Your task to perform on an android device: Is it going to rain tomorrow? Image 0: 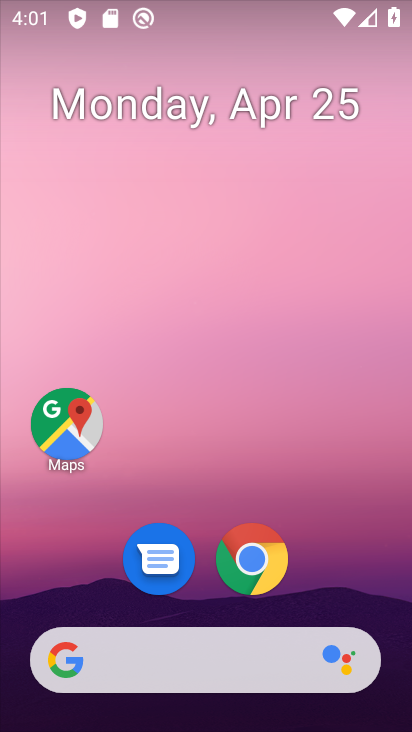
Step 0: drag from (262, 432) to (255, 22)
Your task to perform on an android device: Is it going to rain tomorrow? Image 1: 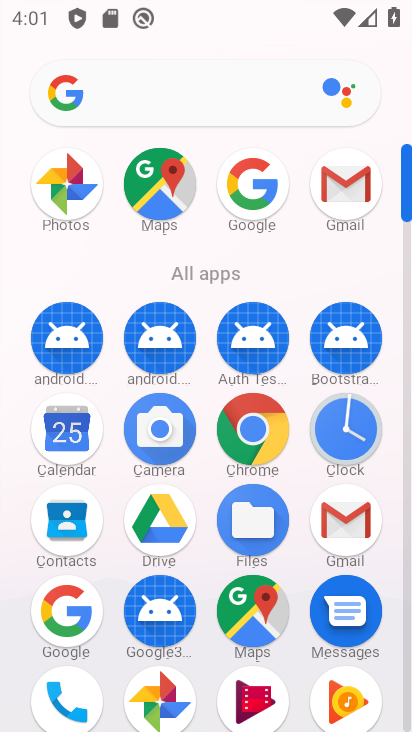
Step 1: click (249, 181)
Your task to perform on an android device: Is it going to rain tomorrow? Image 2: 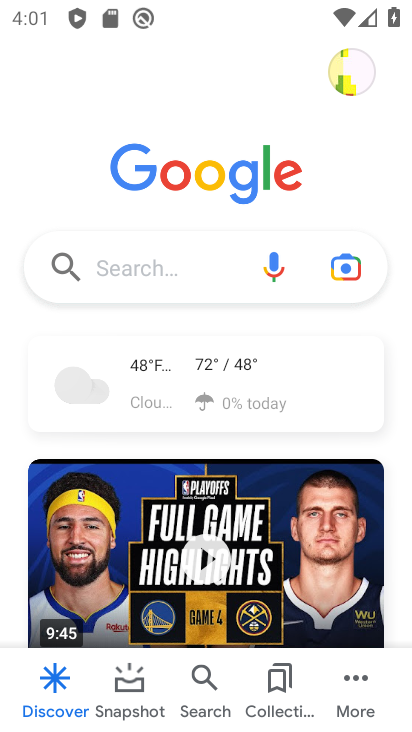
Step 2: click (202, 261)
Your task to perform on an android device: Is it going to rain tomorrow? Image 3: 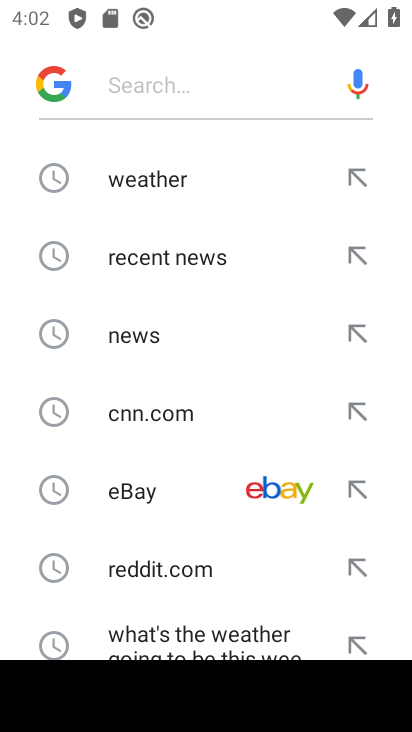
Step 3: type "Is it going to rain tomorrow?"
Your task to perform on an android device: Is it going to rain tomorrow? Image 4: 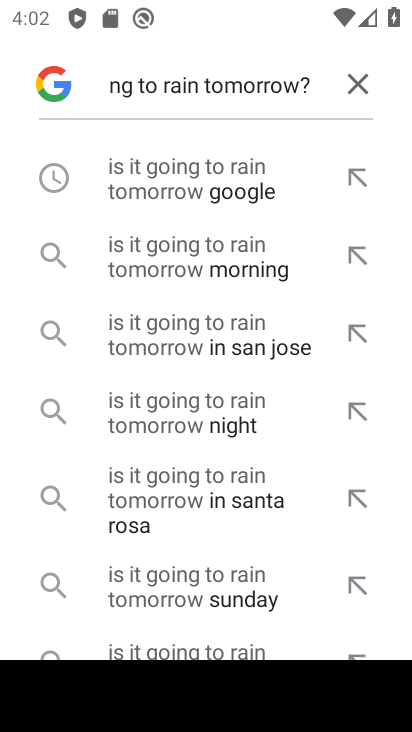
Step 4: click (173, 183)
Your task to perform on an android device: Is it going to rain tomorrow? Image 5: 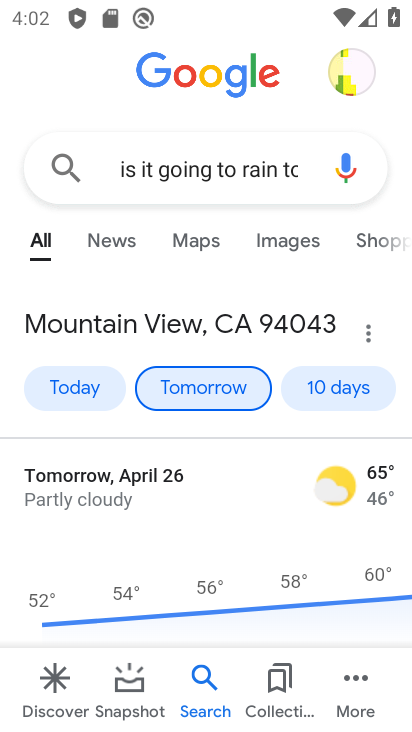
Step 5: task complete